Your task to perform on an android device: Open calendar and show me the first week of next month Image 0: 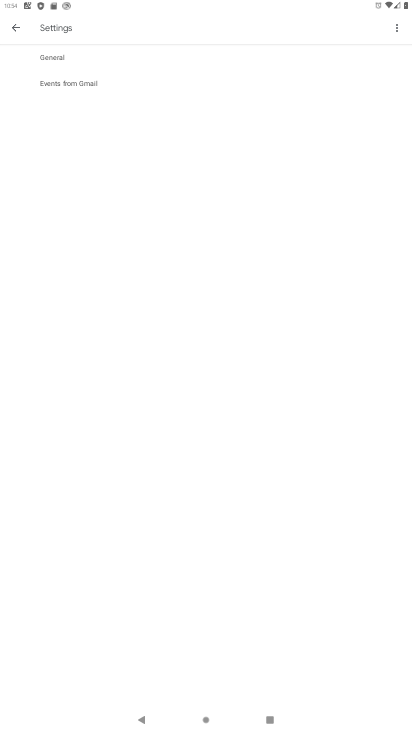
Step 0: press home button
Your task to perform on an android device: Open calendar and show me the first week of next month Image 1: 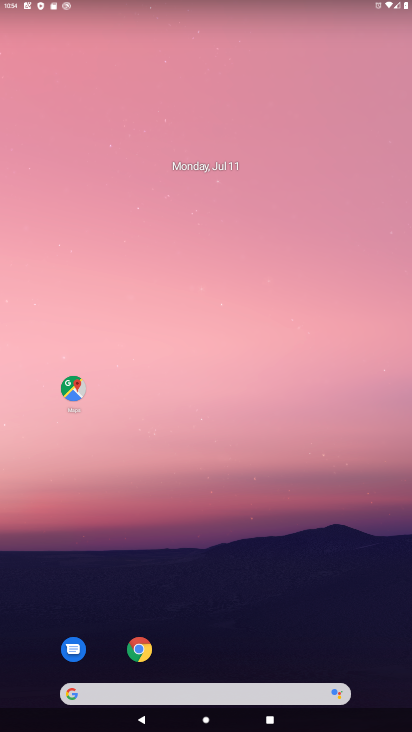
Step 1: drag from (385, 705) to (367, 141)
Your task to perform on an android device: Open calendar and show me the first week of next month Image 2: 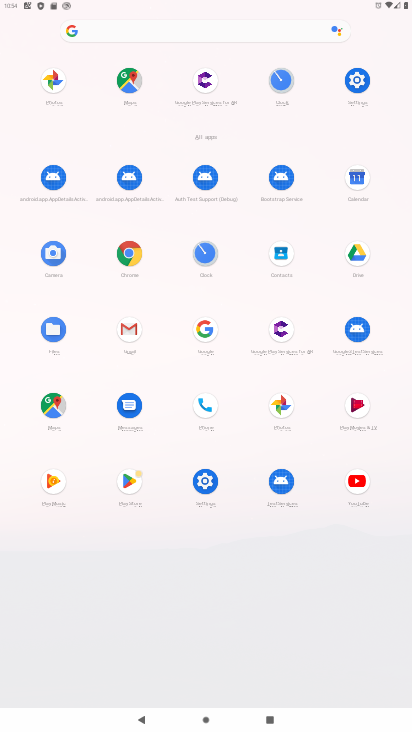
Step 2: click (358, 179)
Your task to perform on an android device: Open calendar and show me the first week of next month Image 3: 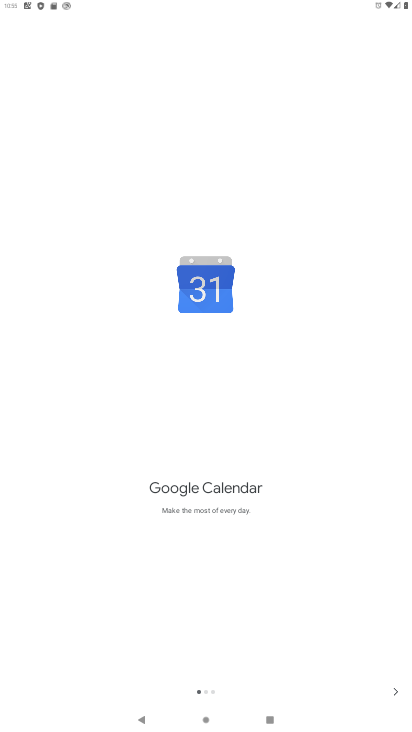
Step 3: click (394, 691)
Your task to perform on an android device: Open calendar and show me the first week of next month Image 4: 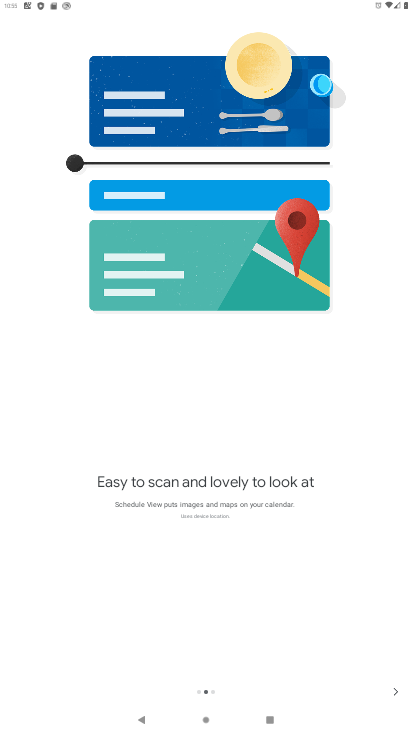
Step 4: click (394, 691)
Your task to perform on an android device: Open calendar and show me the first week of next month Image 5: 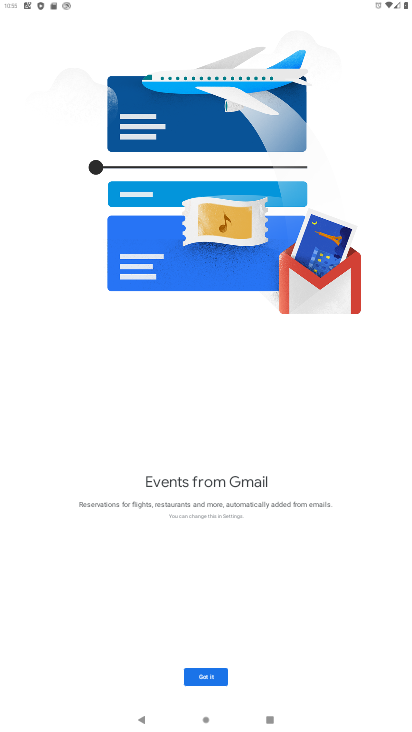
Step 5: click (202, 677)
Your task to perform on an android device: Open calendar and show me the first week of next month Image 6: 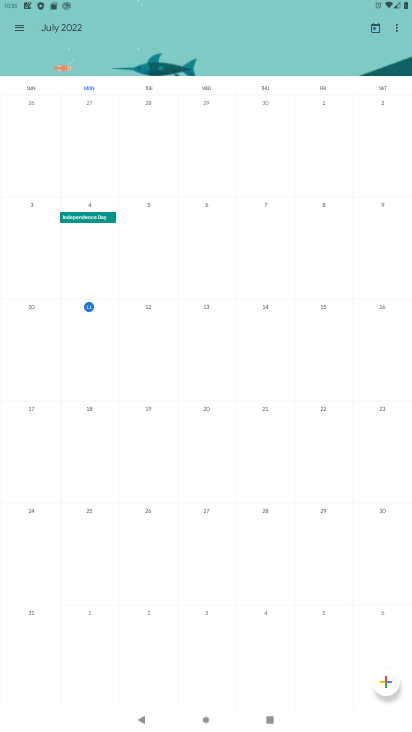
Step 6: drag from (386, 234) to (54, 178)
Your task to perform on an android device: Open calendar and show me the first week of next month Image 7: 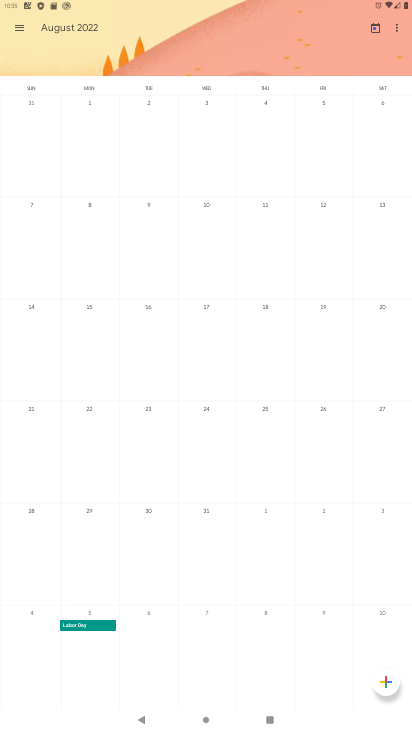
Step 7: click (208, 102)
Your task to perform on an android device: Open calendar and show me the first week of next month Image 8: 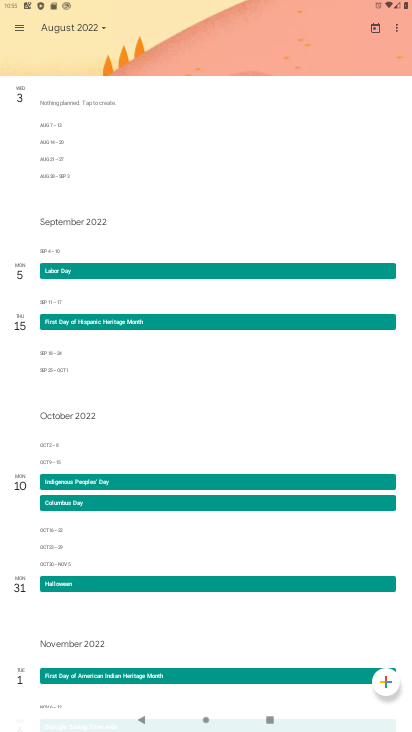
Step 8: click (23, 28)
Your task to perform on an android device: Open calendar and show me the first week of next month Image 9: 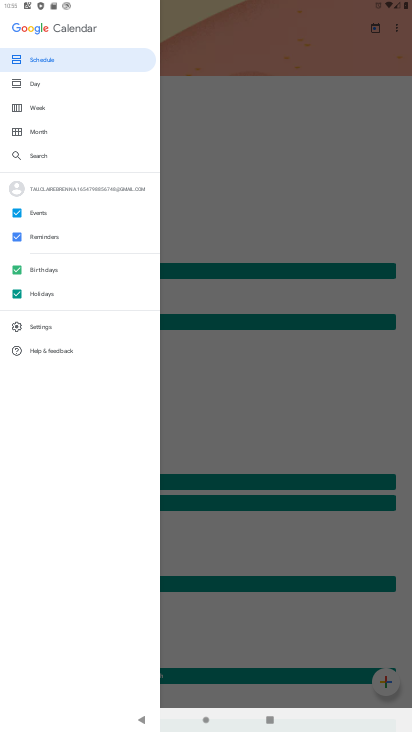
Step 9: click (45, 104)
Your task to perform on an android device: Open calendar and show me the first week of next month Image 10: 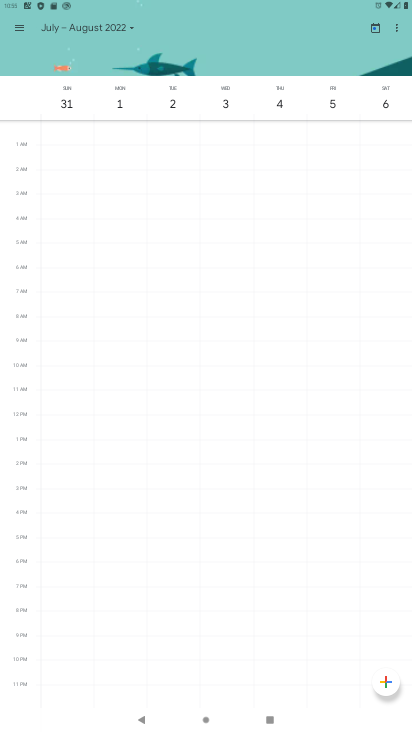
Step 10: task complete